Your task to perform on an android device: What's the weather going to be this weekend? Image 0: 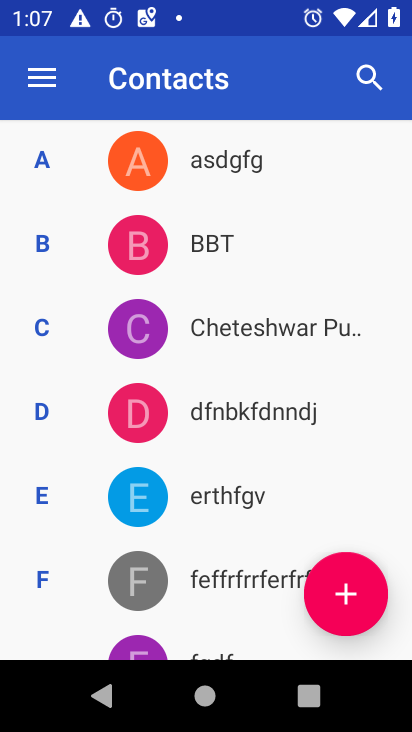
Step 0: press back button
Your task to perform on an android device: What's the weather going to be this weekend? Image 1: 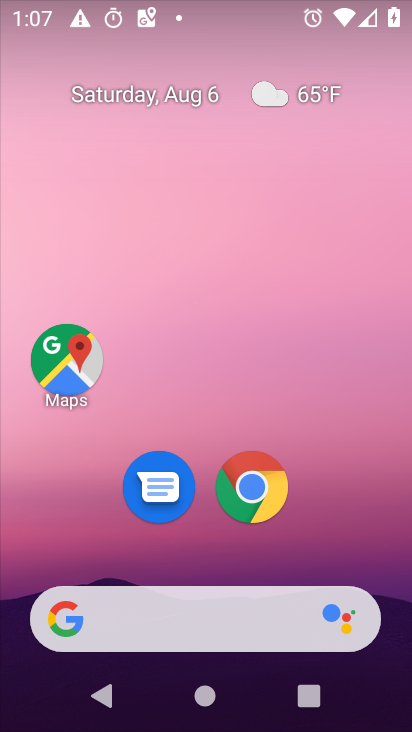
Step 1: click (197, 628)
Your task to perform on an android device: What's the weather going to be this weekend? Image 2: 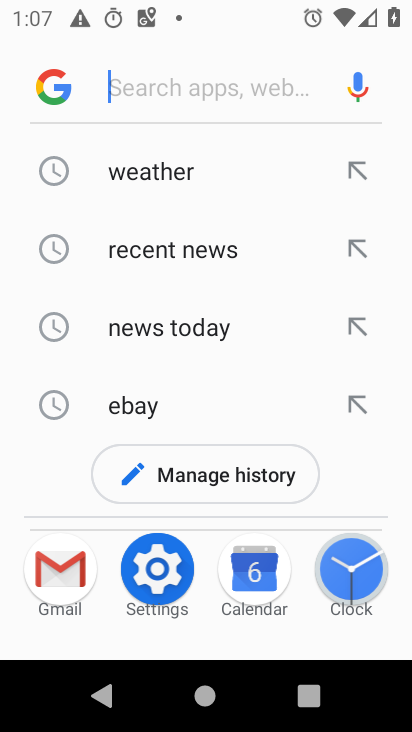
Step 2: click (168, 175)
Your task to perform on an android device: What's the weather going to be this weekend? Image 3: 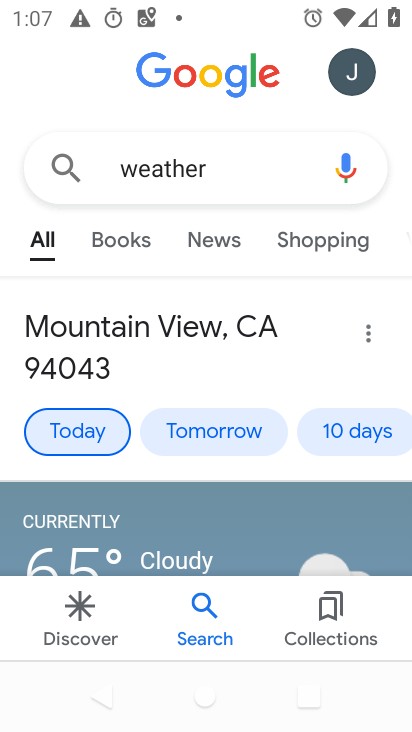
Step 3: click (362, 434)
Your task to perform on an android device: What's the weather going to be this weekend? Image 4: 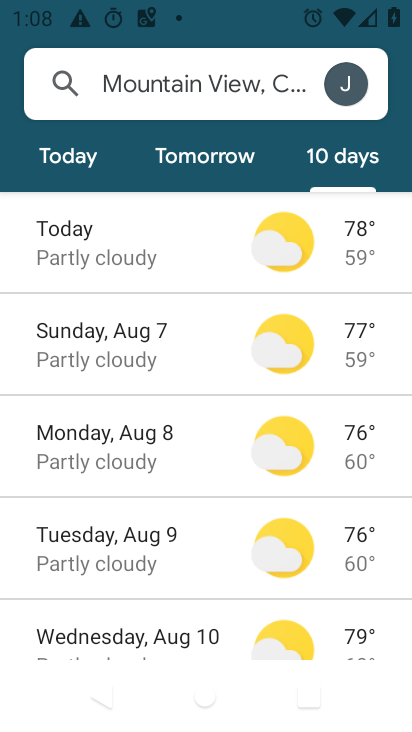
Step 4: task complete